Your task to perform on an android device: Search for flights from Barcelona to Mexico city Image 0: 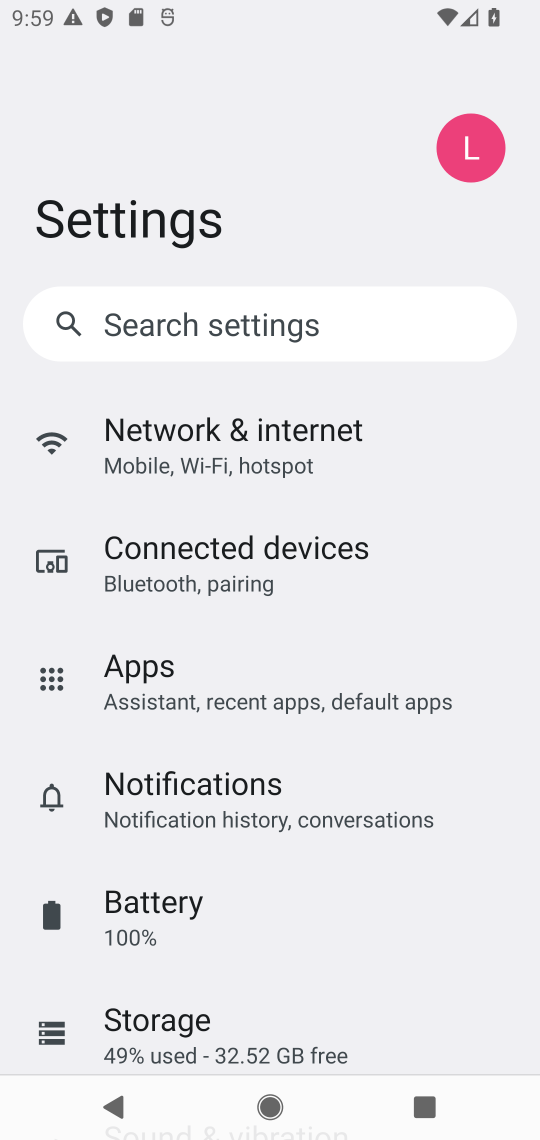
Step 0: press home button
Your task to perform on an android device: Search for flights from Barcelona to Mexico city Image 1: 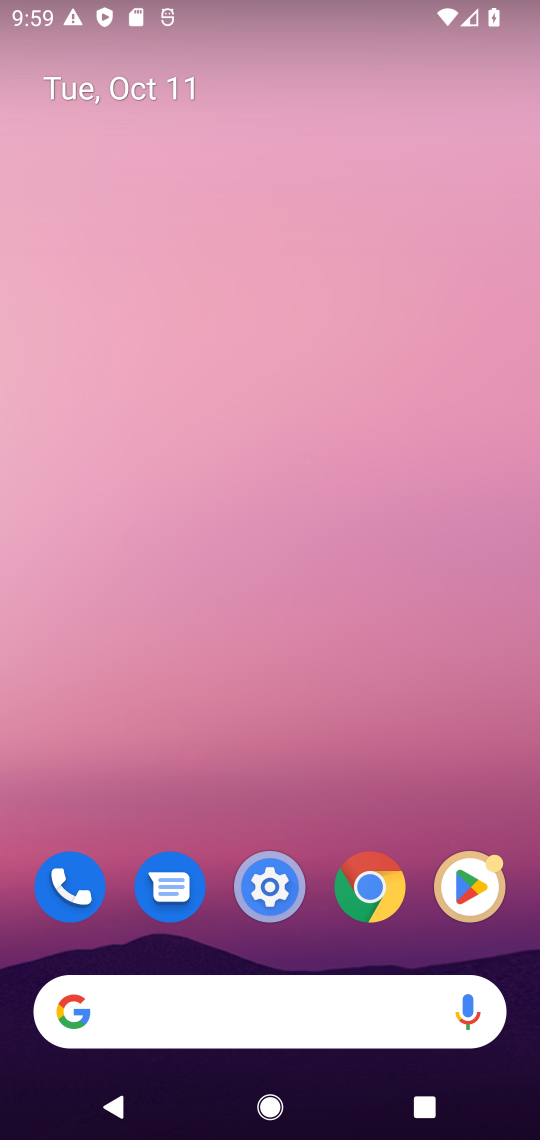
Step 1: click (111, 1022)
Your task to perform on an android device: Search for flights from Barcelona to Mexico city Image 2: 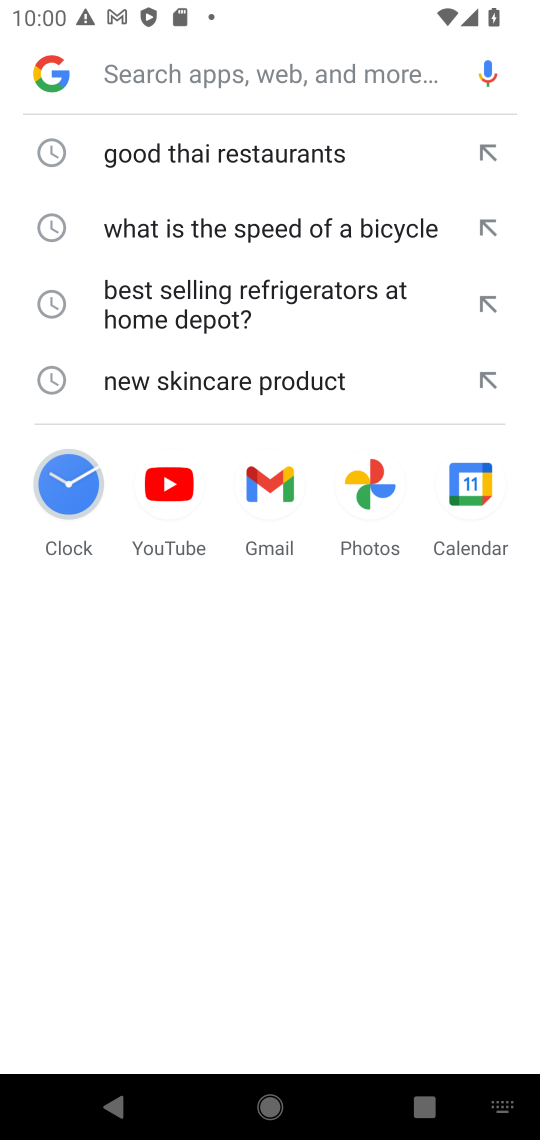
Step 2: type "flights from Barcelona to Mexico city"
Your task to perform on an android device: Search for flights from Barcelona to Mexico city Image 3: 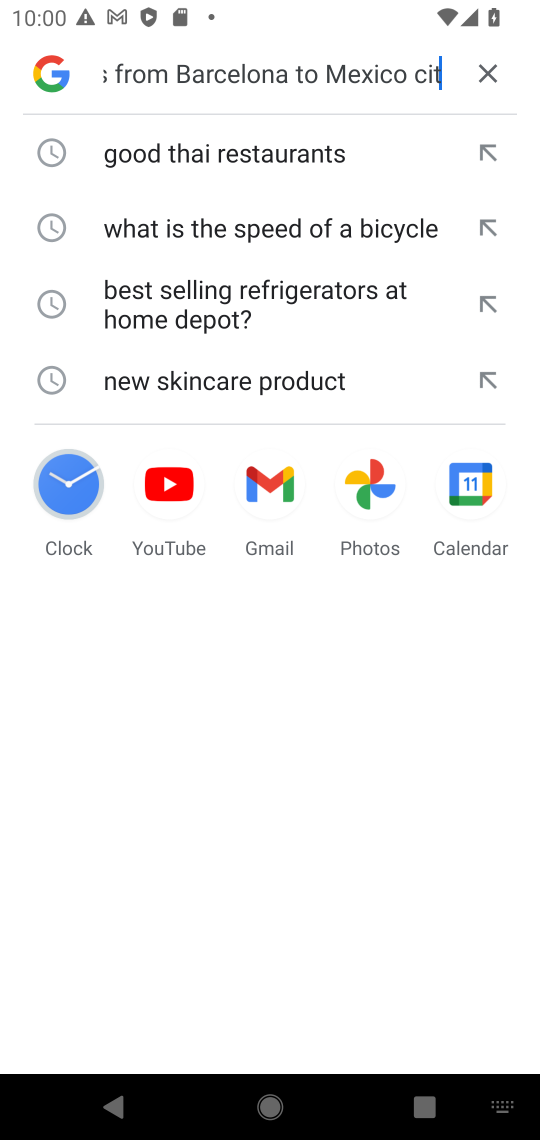
Step 3: press enter
Your task to perform on an android device: Search for flights from Barcelona to Mexico city Image 4: 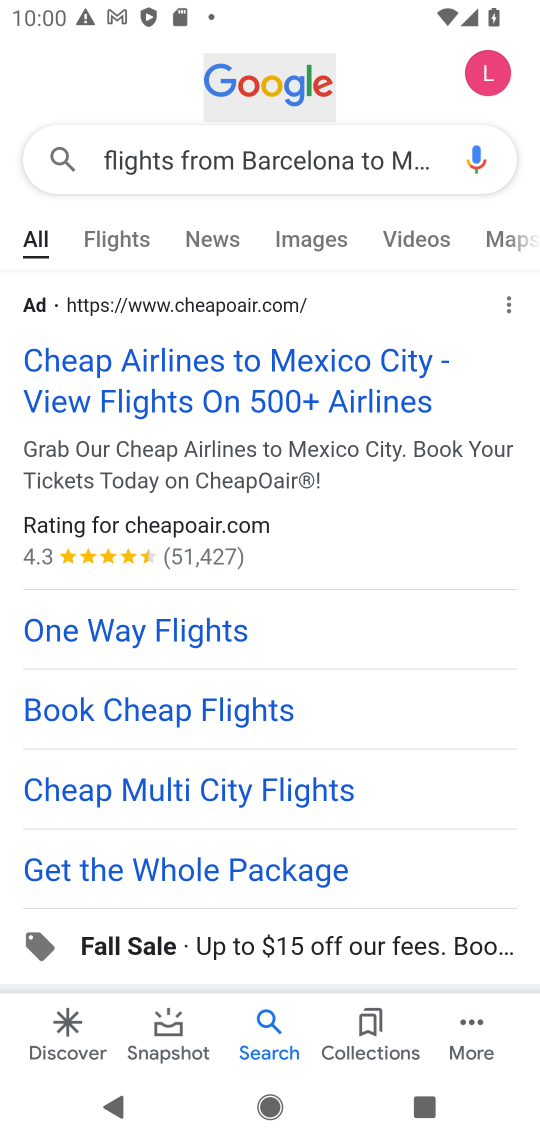
Step 4: drag from (434, 579) to (457, 426)
Your task to perform on an android device: Search for flights from Barcelona to Mexico city Image 5: 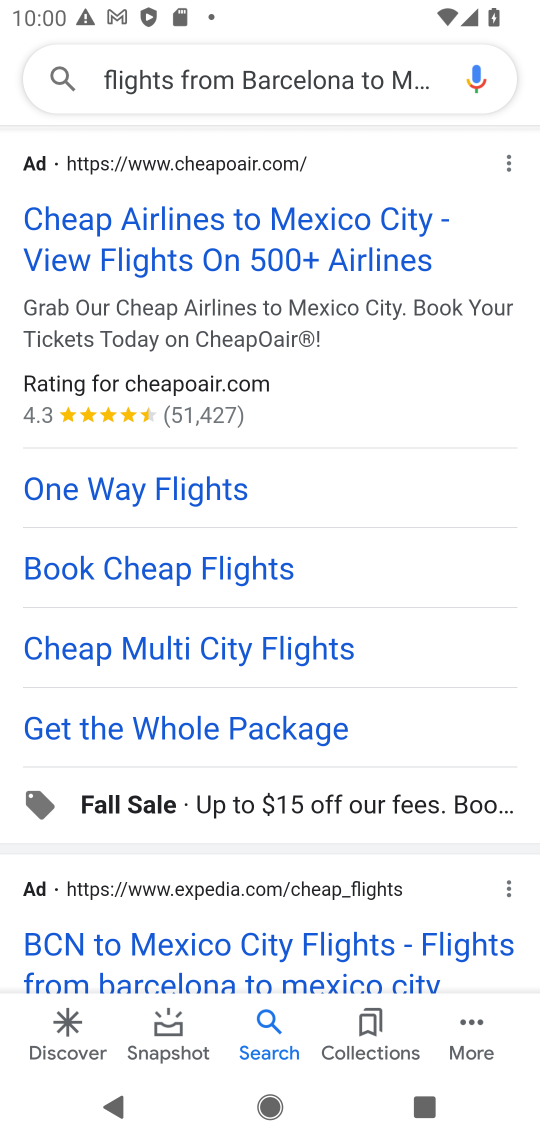
Step 5: drag from (392, 726) to (426, 244)
Your task to perform on an android device: Search for flights from Barcelona to Mexico city Image 6: 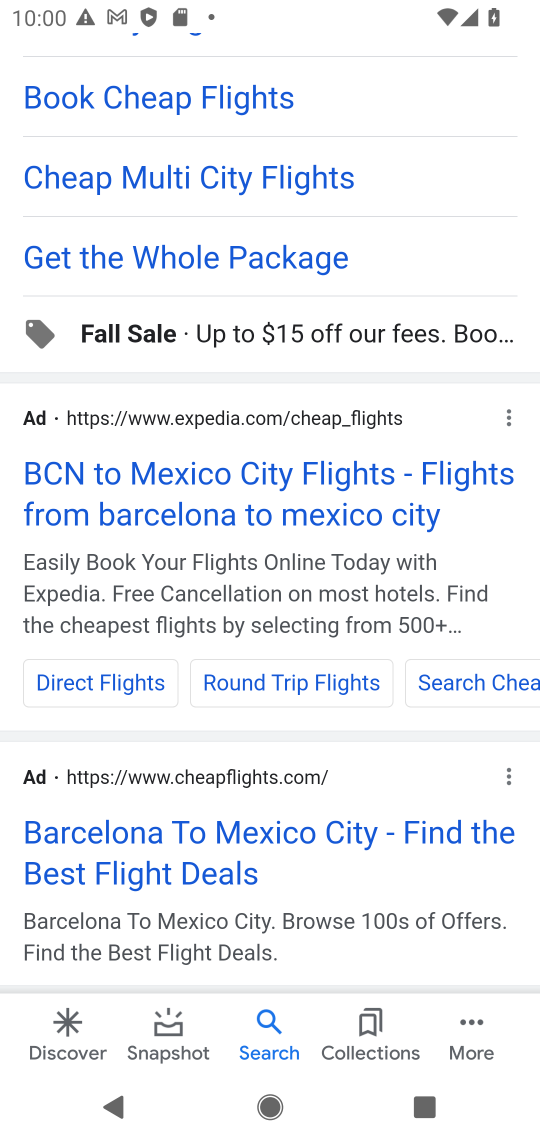
Step 6: drag from (413, 711) to (441, 319)
Your task to perform on an android device: Search for flights from Barcelona to Mexico city Image 7: 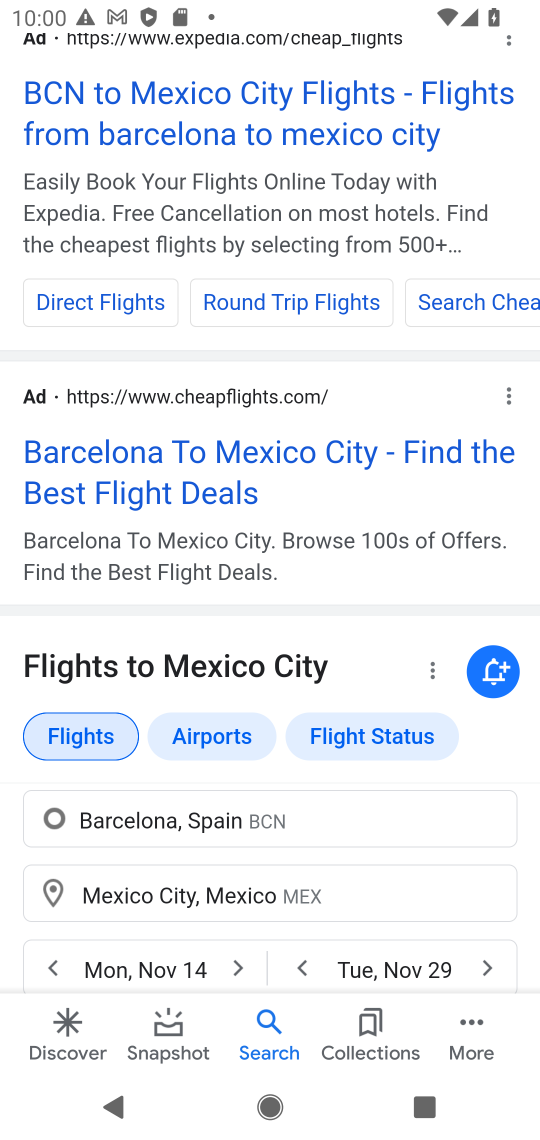
Step 7: drag from (337, 560) to (364, 264)
Your task to perform on an android device: Search for flights from Barcelona to Mexico city Image 8: 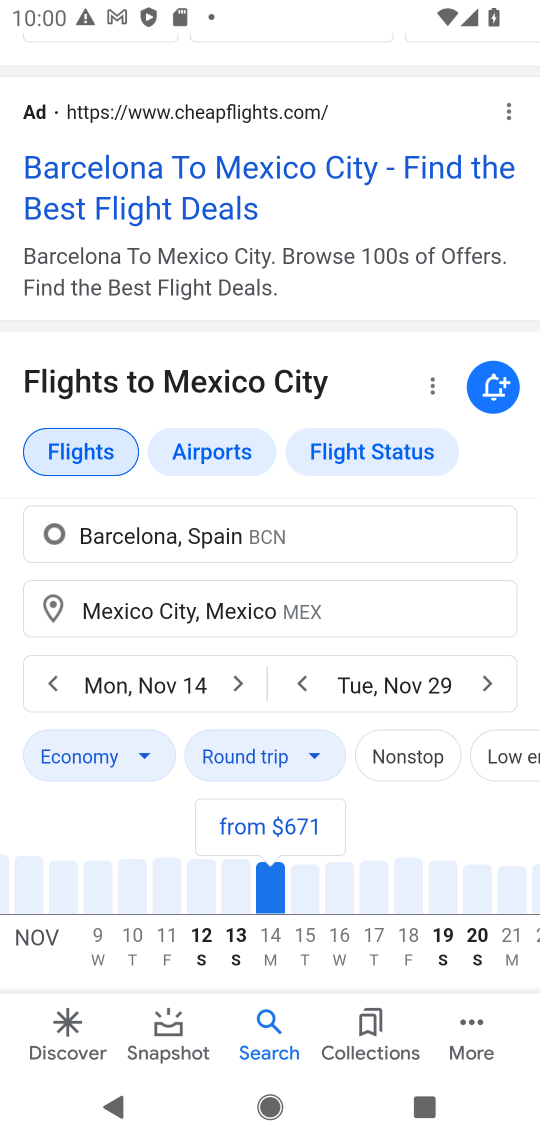
Step 8: drag from (318, 741) to (373, 222)
Your task to perform on an android device: Search for flights from Barcelona to Mexico city Image 9: 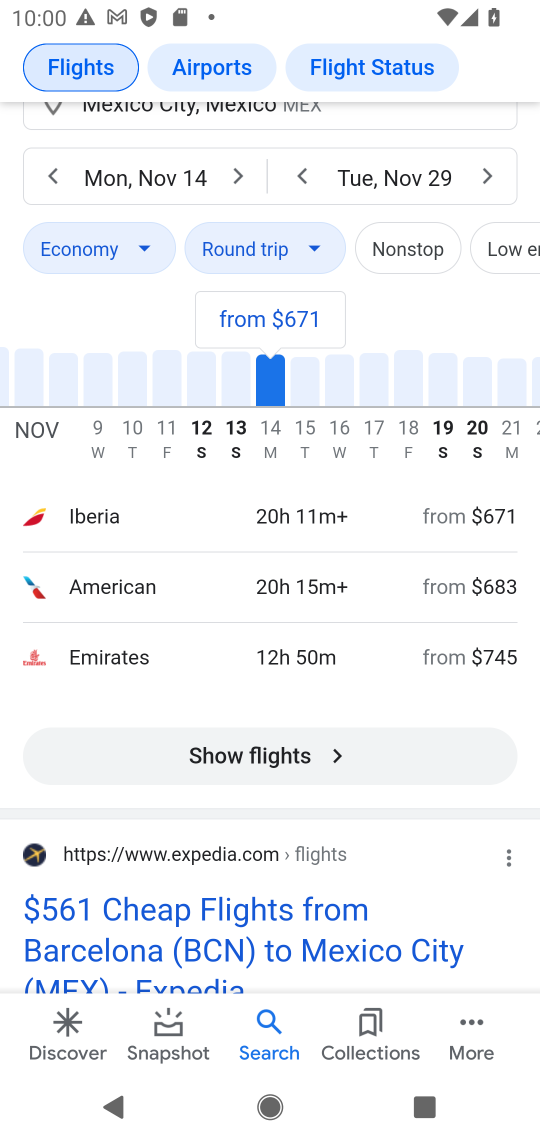
Step 9: click (254, 751)
Your task to perform on an android device: Search for flights from Barcelona to Mexico city Image 10: 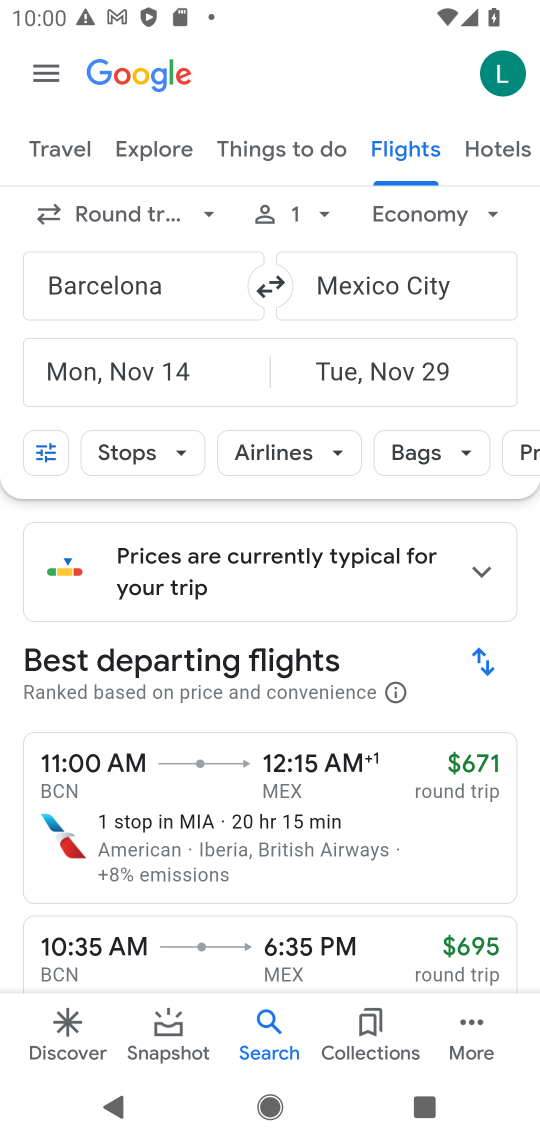
Step 10: task complete